Your task to perform on an android device: Open calendar and show me the second week of next month Image 0: 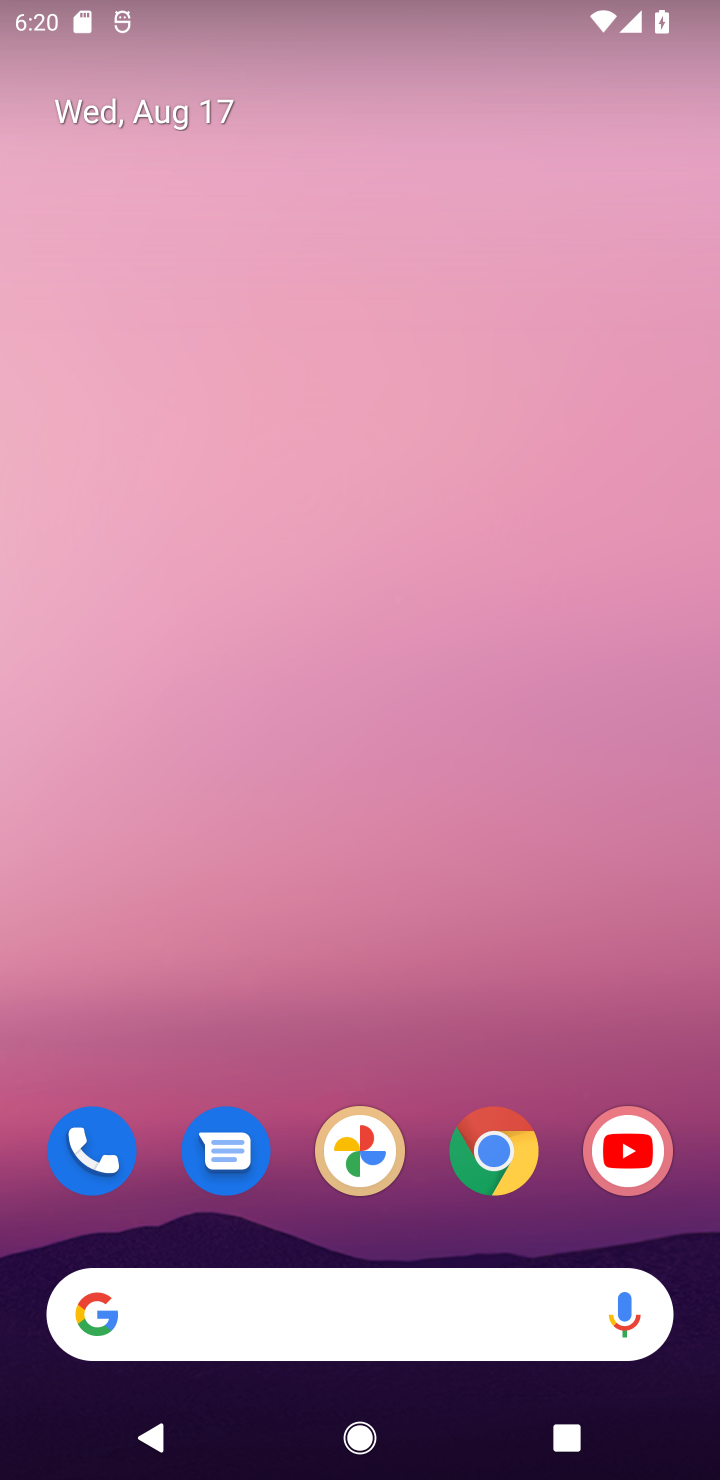
Step 0: drag from (435, 1300) to (410, 1194)
Your task to perform on an android device: Open calendar and show me the second week of next month Image 1: 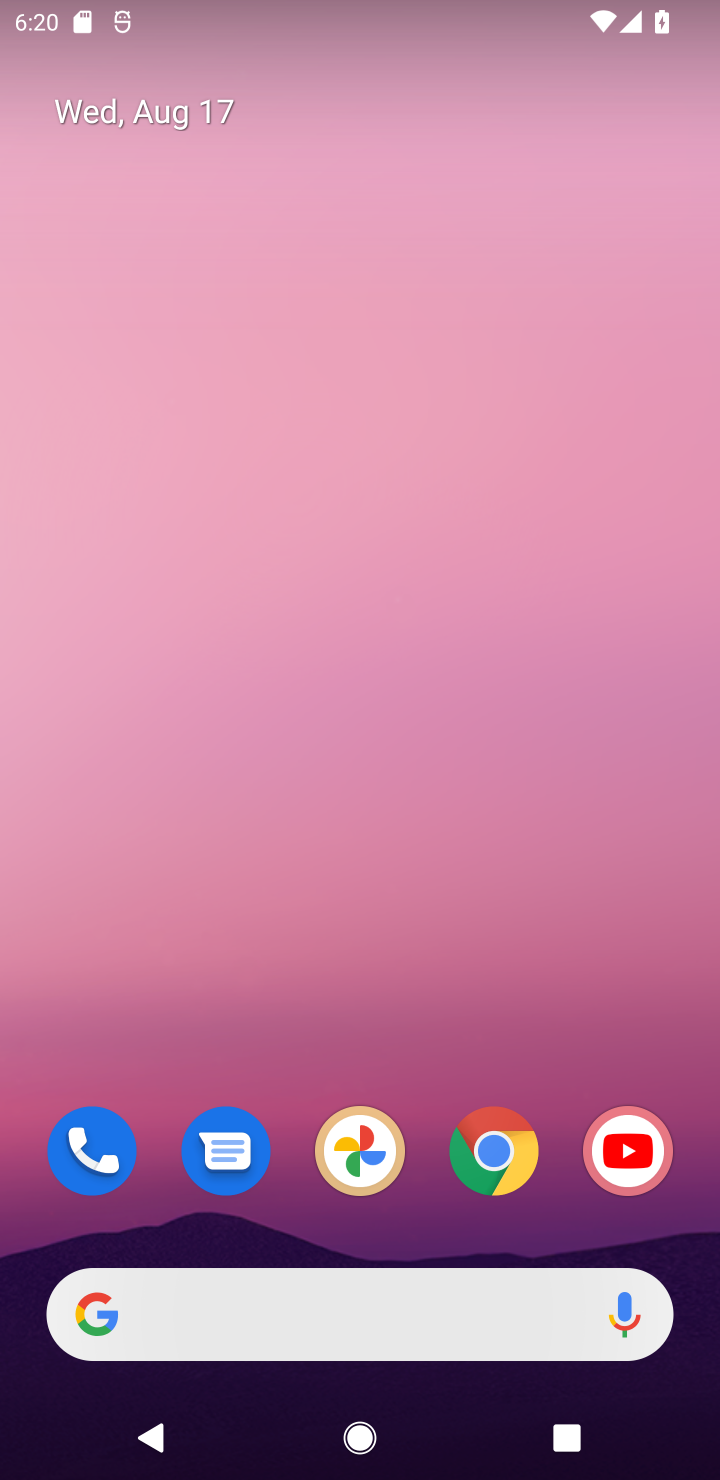
Step 1: drag from (410, 1207) to (329, 303)
Your task to perform on an android device: Open calendar and show me the second week of next month Image 2: 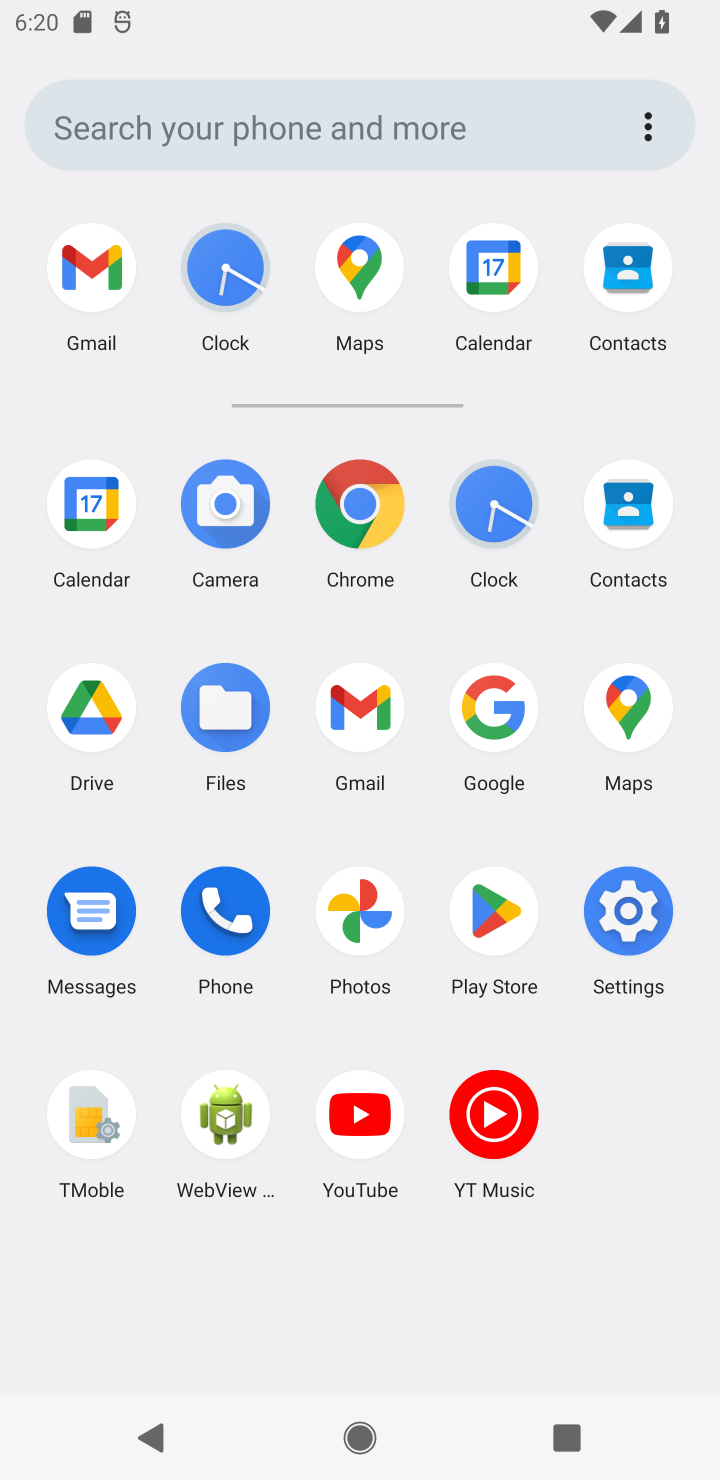
Step 2: click (490, 317)
Your task to perform on an android device: Open calendar and show me the second week of next month Image 3: 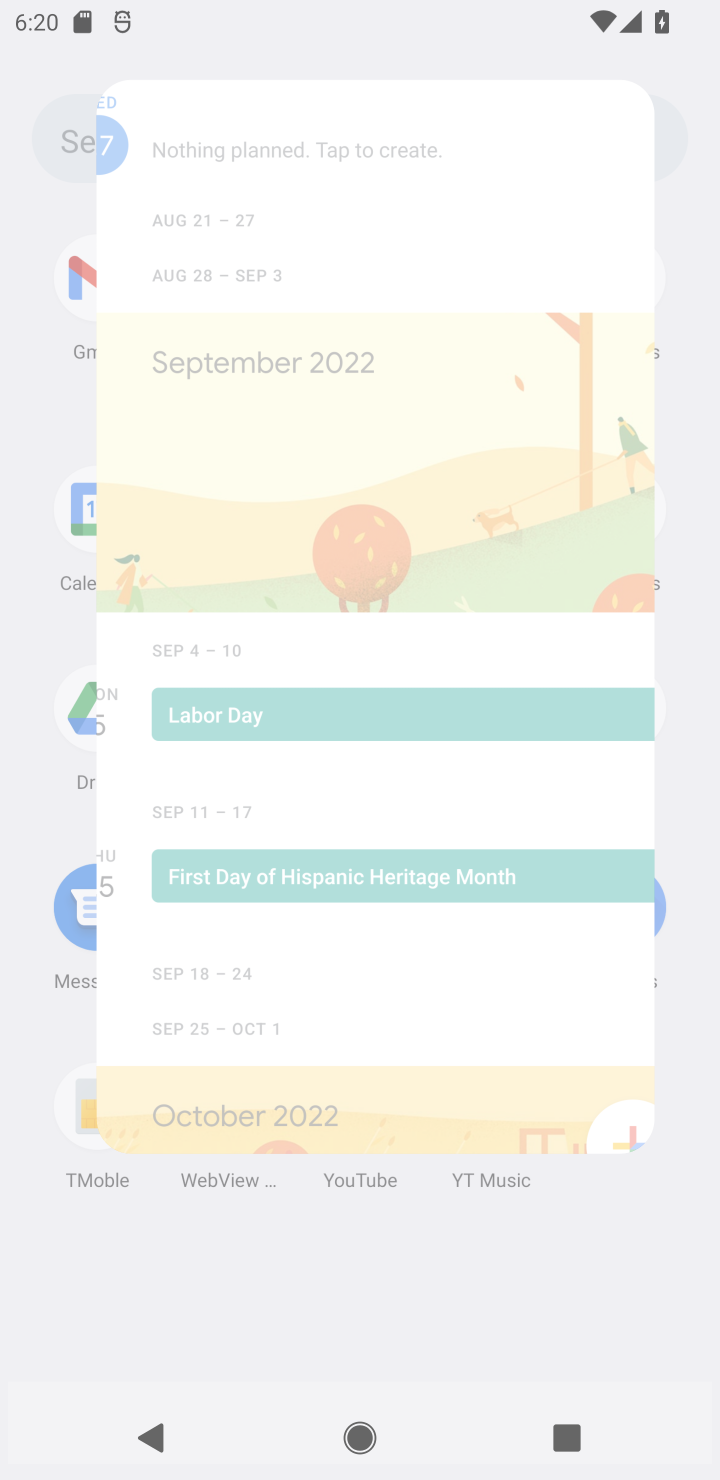
Step 3: task complete